Your task to perform on an android device: find which apps use the phone's location Image 0: 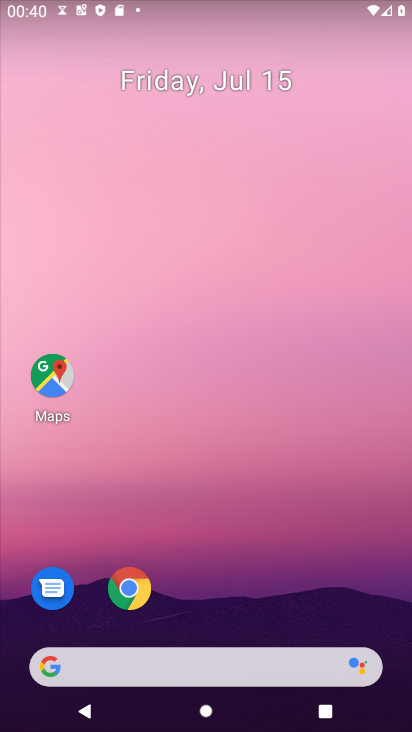
Step 0: drag from (245, 598) to (360, 31)
Your task to perform on an android device: find which apps use the phone's location Image 1: 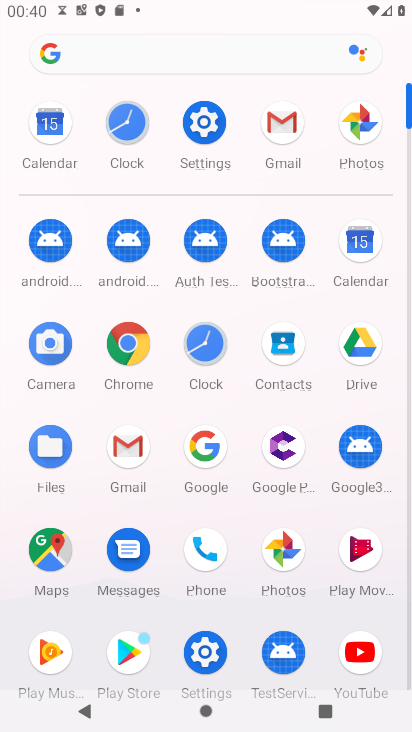
Step 1: click (209, 121)
Your task to perform on an android device: find which apps use the phone's location Image 2: 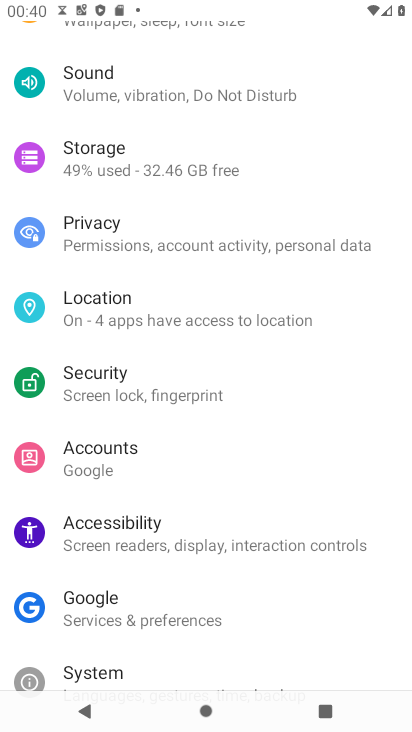
Step 2: click (103, 299)
Your task to perform on an android device: find which apps use the phone's location Image 3: 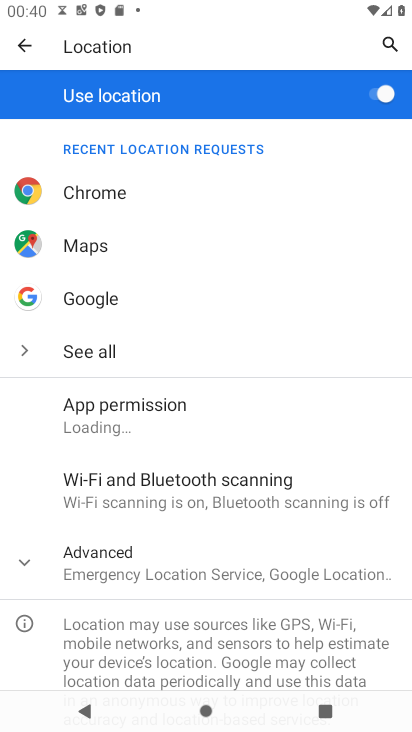
Step 3: click (121, 398)
Your task to perform on an android device: find which apps use the phone's location Image 4: 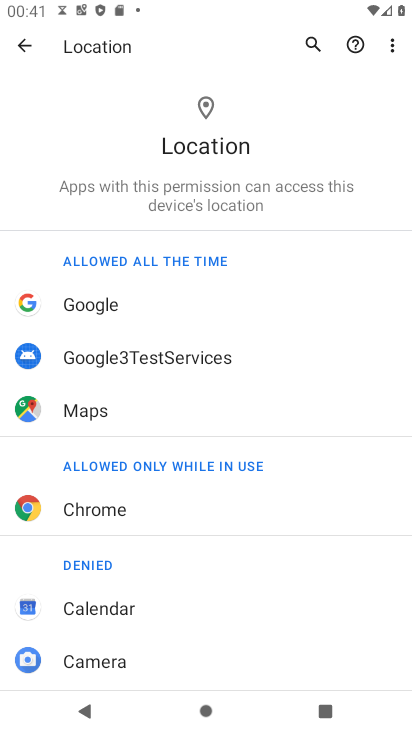
Step 4: task complete